Your task to perform on an android device: Open settings Image 0: 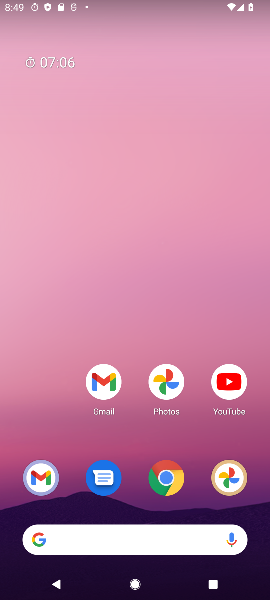
Step 0: press home button
Your task to perform on an android device: Open settings Image 1: 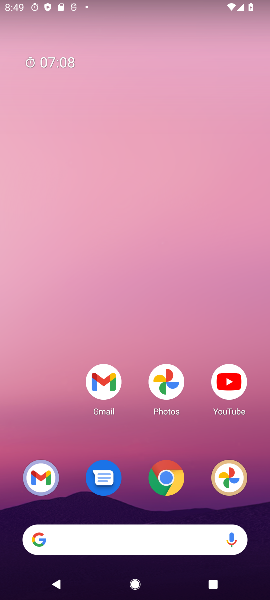
Step 1: drag from (131, 487) to (180, 78)
Your task to perform on an android device: Open settings Image 2: 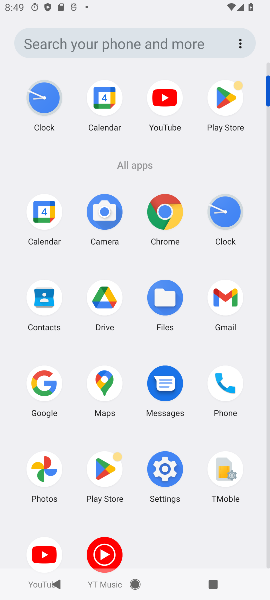
Step 2: click (153, 479)
Your task to perform on an android device: Open settings Image 3: 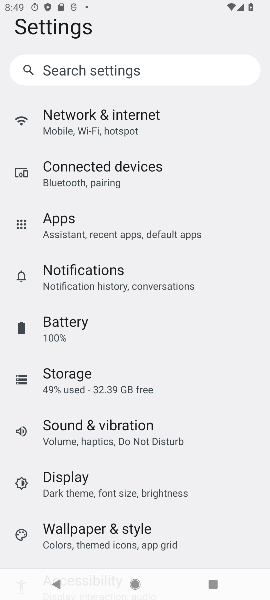
Step 3: task complete